Your task to perform on an android device: open sync settings in chrome Image 0: 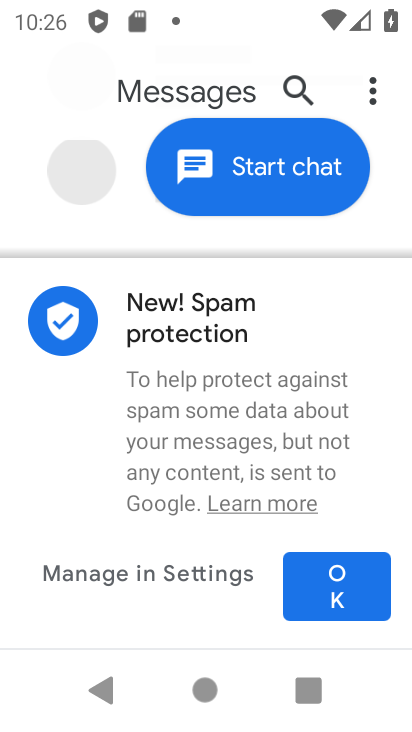
Step 0: press home button
Your task to perform on an android device: open sync settings in chrome Image 1: 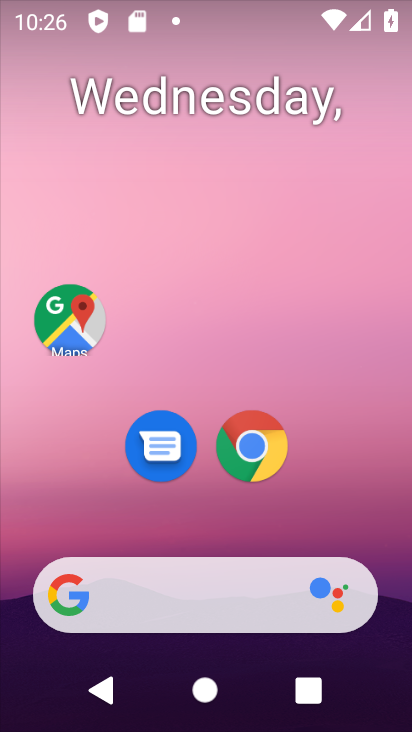
Step 1: click (270, 462)
Your task to perform on an android device: open sync settings in chrome Image 2: 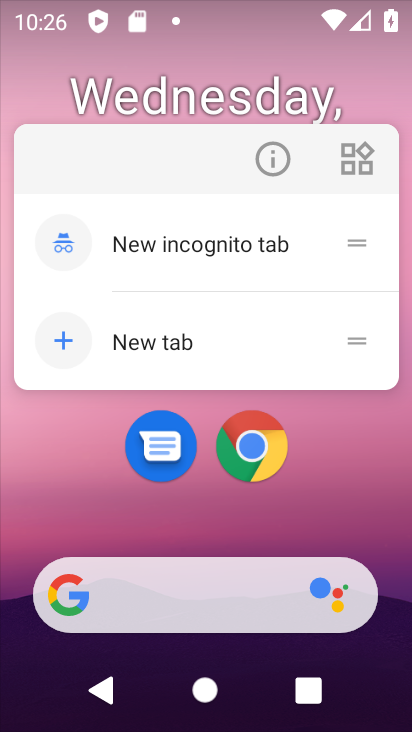
Step 2: click (256, 453)
Your task to perform on an android device: open sync settings in chrome Image 3: 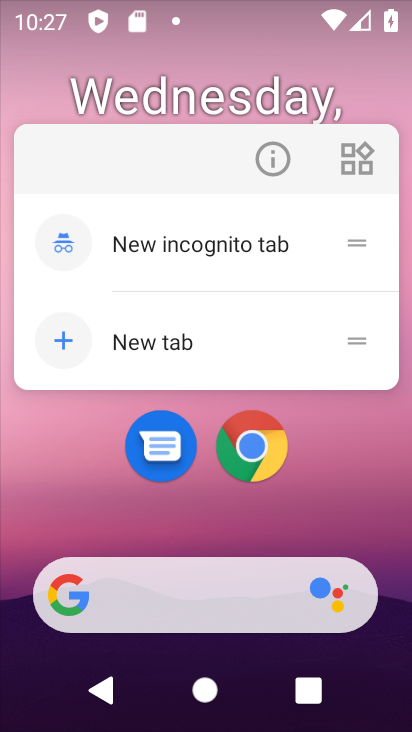
Step 3: click (260, 453)
Your task to perform on an android device: open sync settings in chrome Image 4: 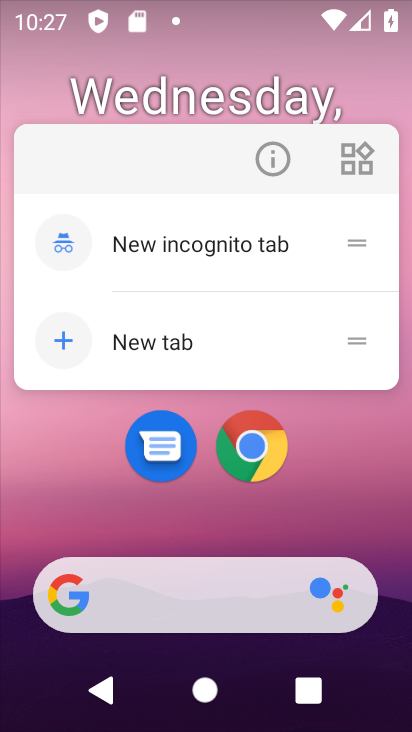
Step 4: click (261, 452)
Your task to perform on an android device: open sync settings in chrome Image 5: 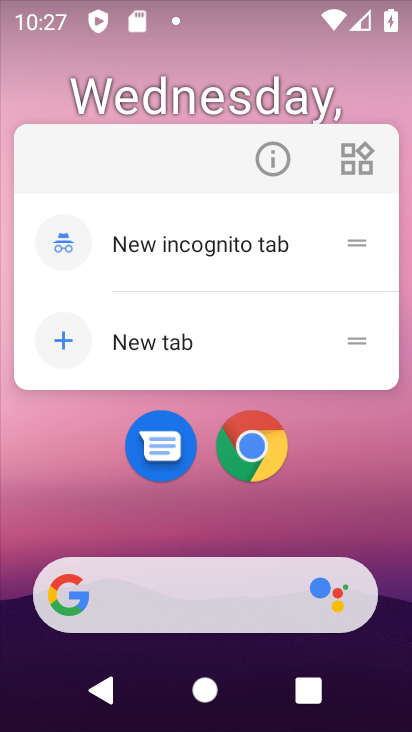
Step 5: click (261, 452)
Your task to perform on an android device: open sync settings in chrome Image 6: 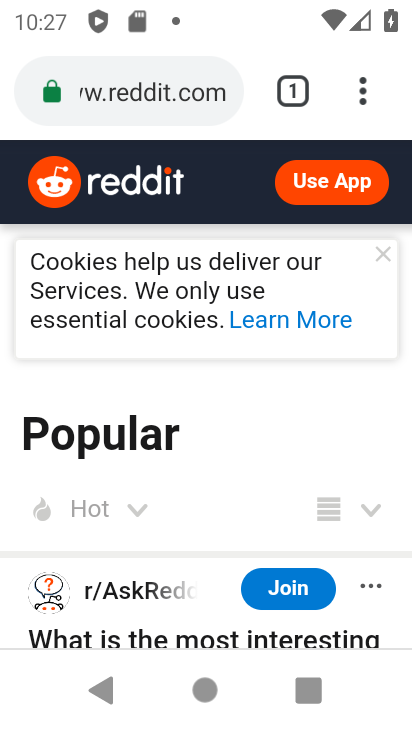
Step 6: drag from (359, 88) to (323, 491)
Your task to perform on an android device: open sync settings in chrome Image 7: 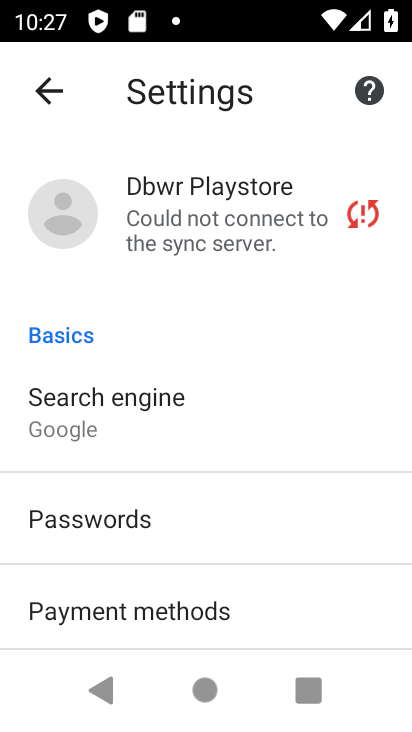
Step 7: click (222, 259)
Your task to perform on an android device: open sync settings in chrome Image 8: 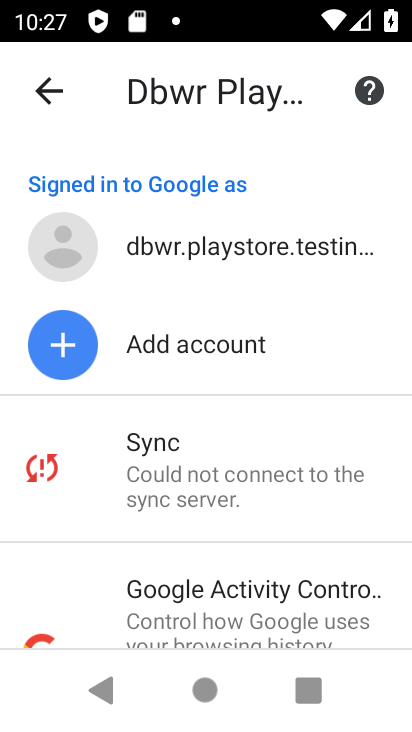
Step 8: click (209, 482)
Your task to perform on an android device: open sync settings in chrome Image 9: 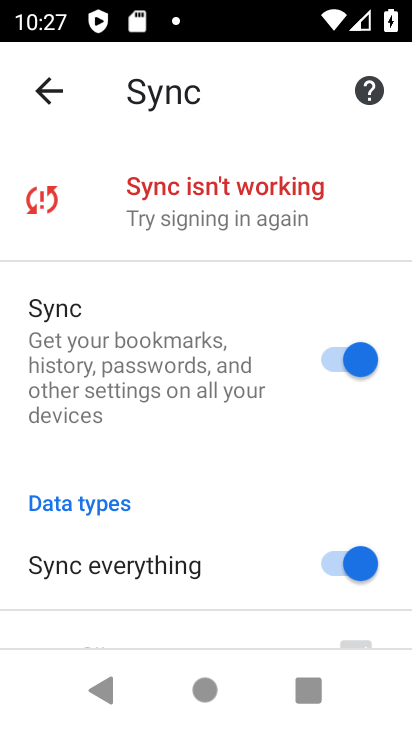
Step 9: task complete